Your task to perform on an android device: open device folders in google photos Image 0: 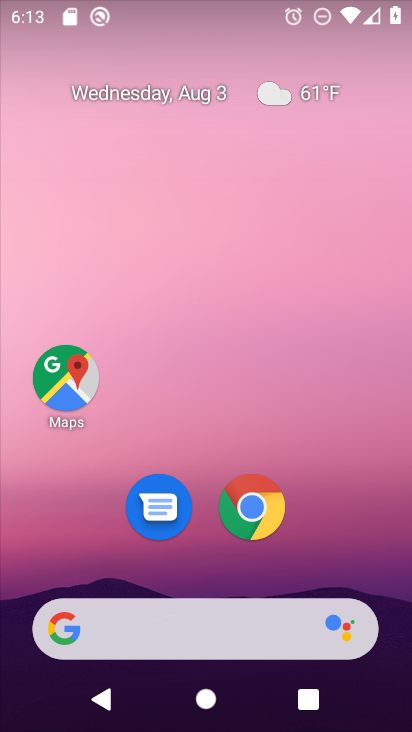
Step 0: drag from (328, 524) to (324, 48)
Your task to perform on an android device: open device folders in google photos Image 1: 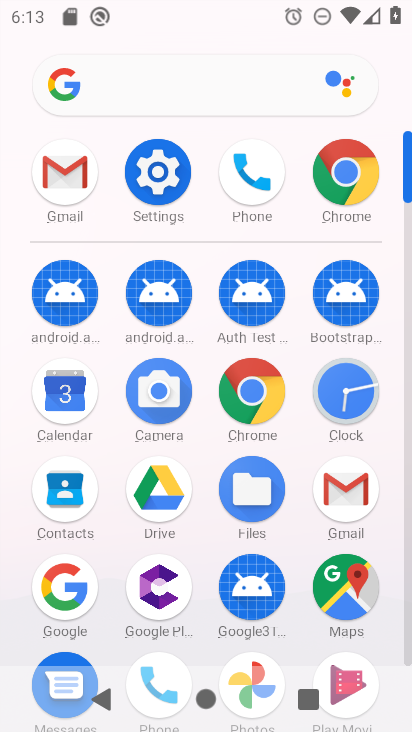
Step 1: drag from (295, 541) to (310, 188)
Your task to perform on an android device: open device folders in google photos Image 2: 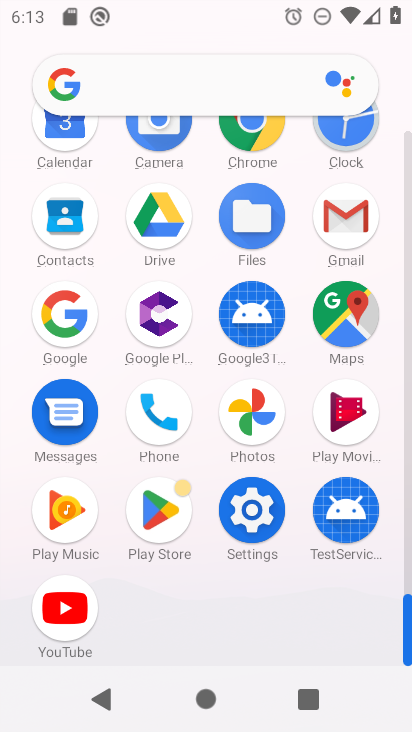
Step 2: click (257, 409)
Your task to perform on an android device: open device folders in google photos Image 3: 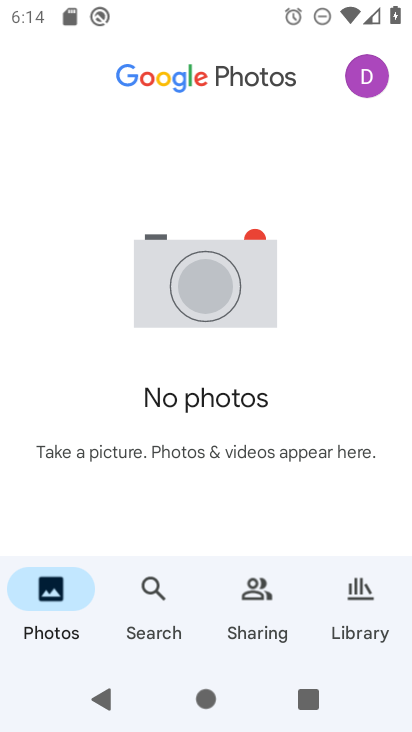
Step 3: click (360, 74)
Your task to perform on an android device: open device folders in google photos Image 4: 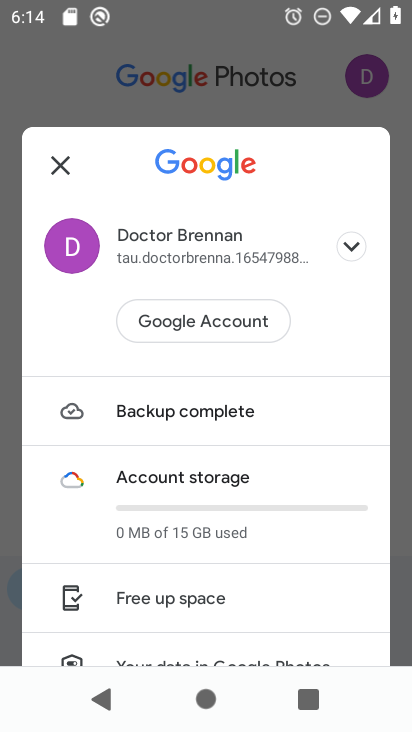
Step 4: drag from (242, 528) to (348, 102)
Your task to perform on an android device: open device folders in google photos Image 5: 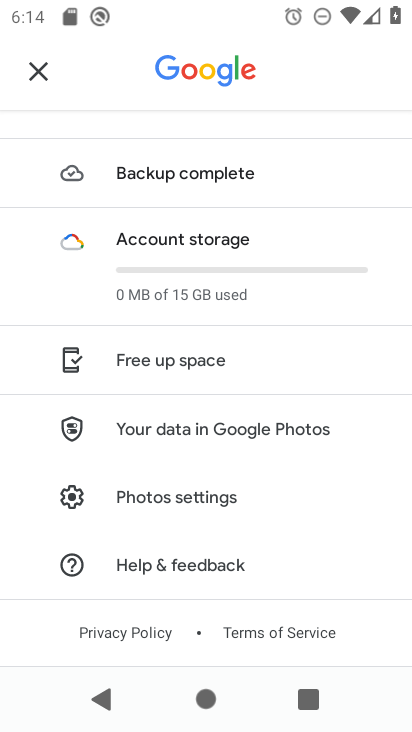
Step 5: click (230, 502)
Your task to perform on an android device: open device folders in google photos Image 6: 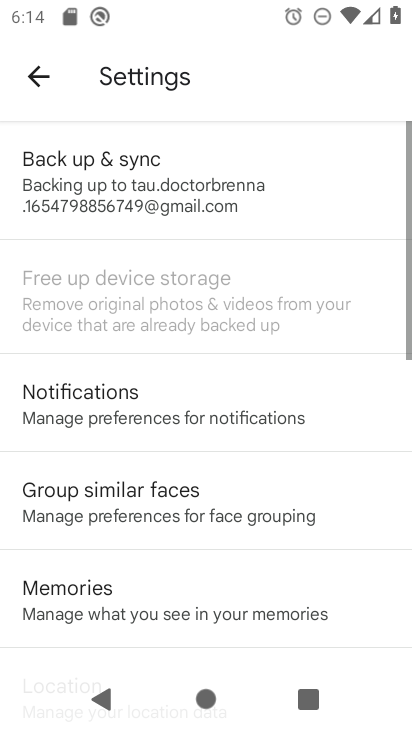
Step 6: drag from (296, 551) to (333, 127)
Your task to perform on an android device: open device folders in google photos Image 7: 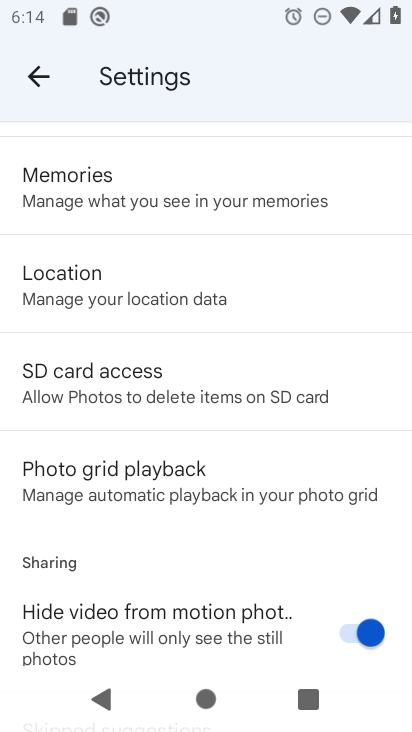
Step 7: drag from (208, 576) to (341, 151)
Your task to perform on an android device: open device folders in google photos Image 8: 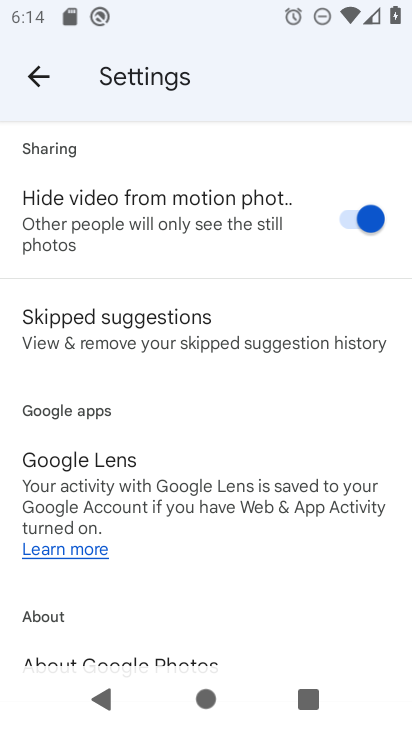
Step 8: drag from (213, 226) to (198, 635)
Your task to perform on an android device: open device folders in google photos Image 9: 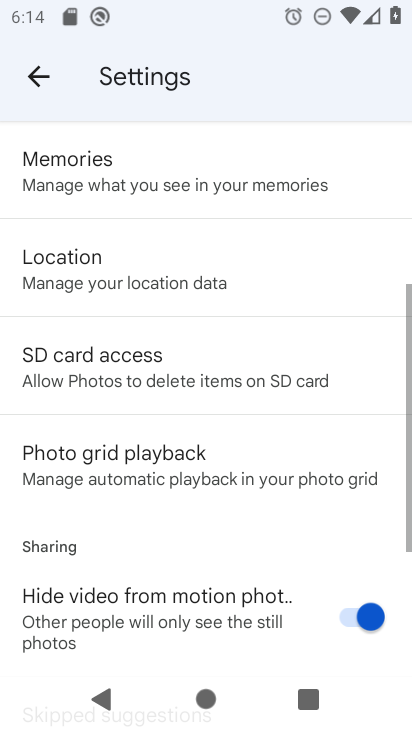
Step 9: drag from (203, 603) to (237, 18)
Your task to perform on an android device: open device folders in google photos Image 10: 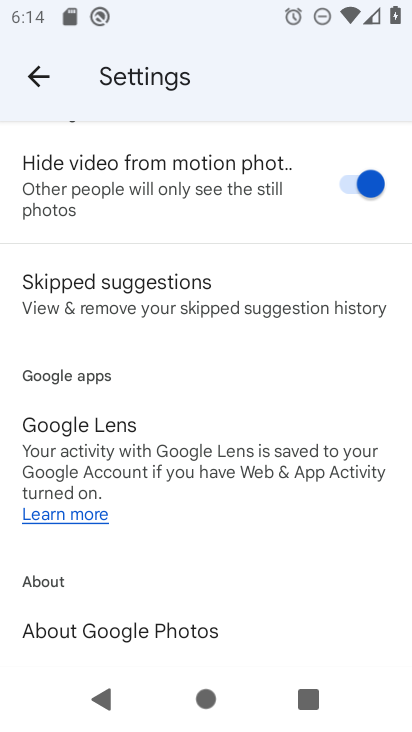
Step 10: drag from (289, 523) to (247, 124)
Your task to perform on an android device: open device folders in google photos Image 11: 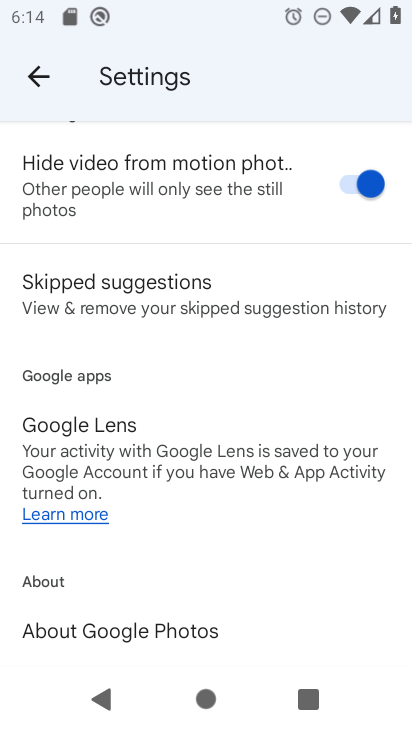
Step 11: drag from (298, 595) to (244, 115)
Your task to perform on an android device: open device folders in google photos Image 12: 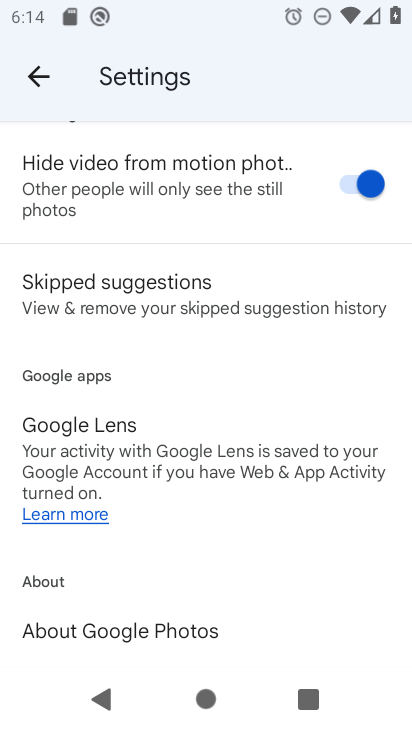
Step 12: drag from (239, 278) to (295, 663)
Your task to perform on an android device: open device folders in google photos Image 13: 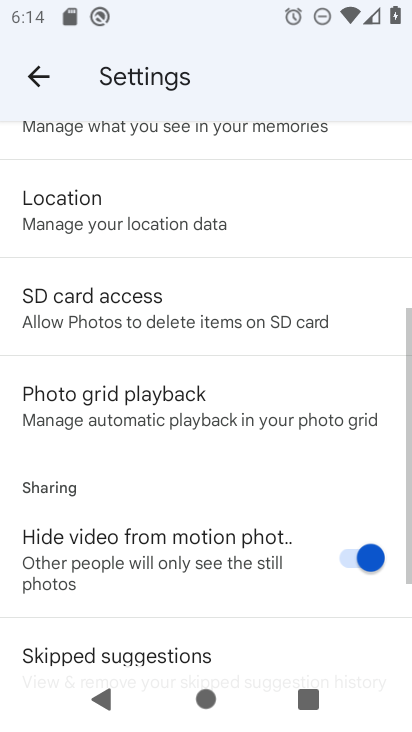
Step 13: drag from (251, 223) to (245, 643)
Your task to perform on an android device: open device folders in google photos Image 14: 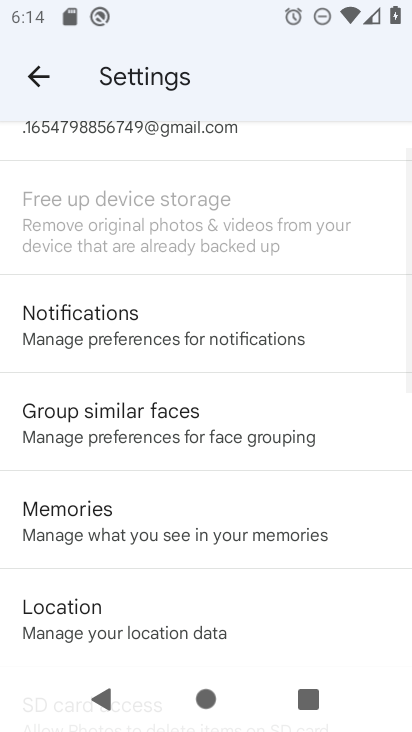
Step 14: drag from (222, 240) to (258, 587)
Your task to perform on an android device: open device folders in google photos Image 15: 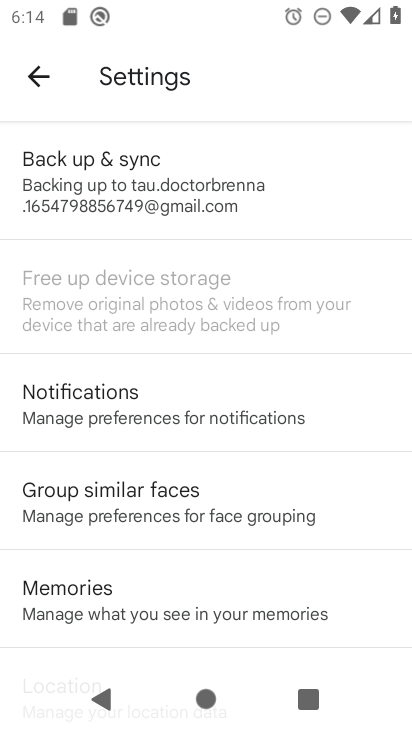
Step 15: click (192, 176)
Your task to perform on an android device: open device folders in google photos Image 16: 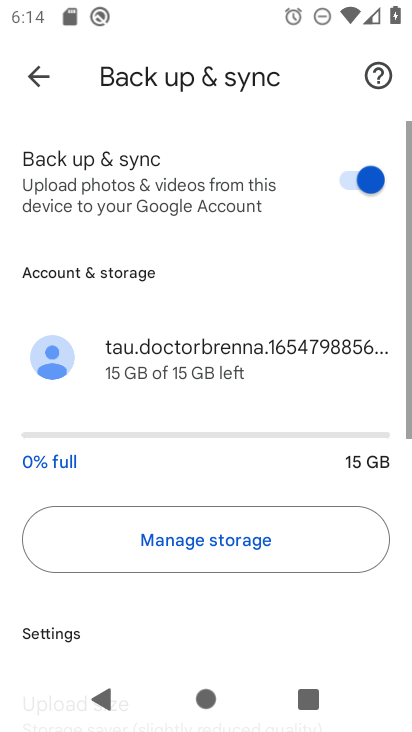
Step 16: drag from (209, 516) to (232, 25)
Your task to perform on an android device: open device folders in google photos Image 17: 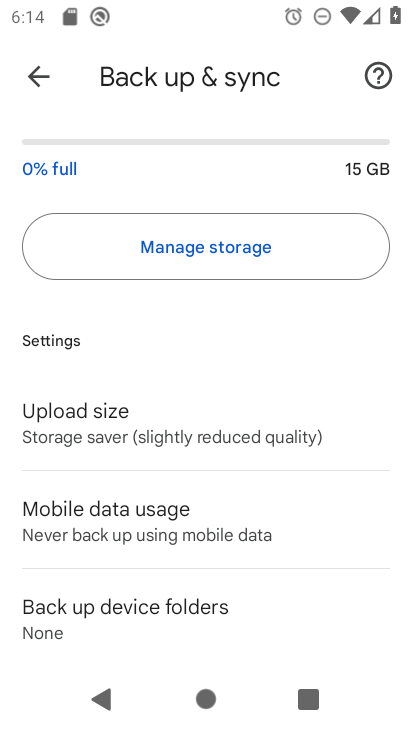
Step 17: drag from (239, 270) to (244, 41)
Your task to perform on an android device: open device folders in google photos Image 18: 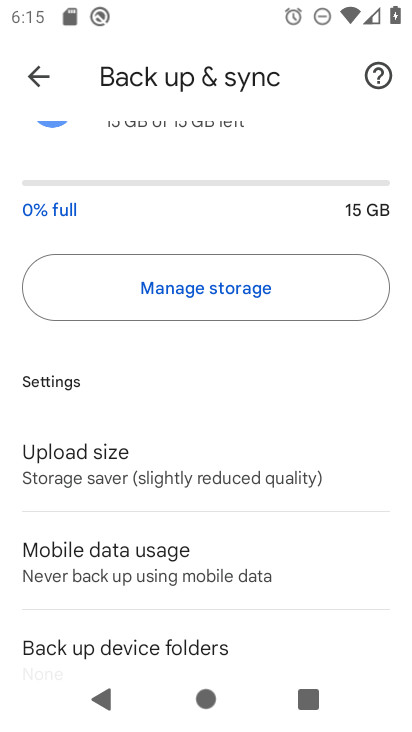
Step 18: drag from (230, 524) to (230, 4)
Your task to perform on an android device: open device folders in google photos Image 19: 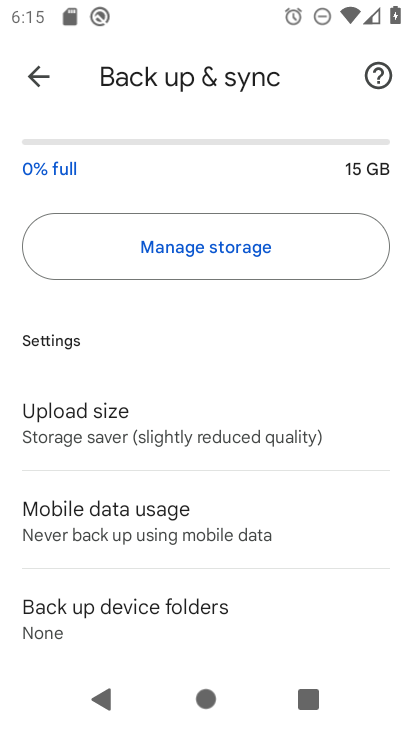
Step 19: click (193, 618)
Your task to perform on an android device: open device folders in google photos Image 20: 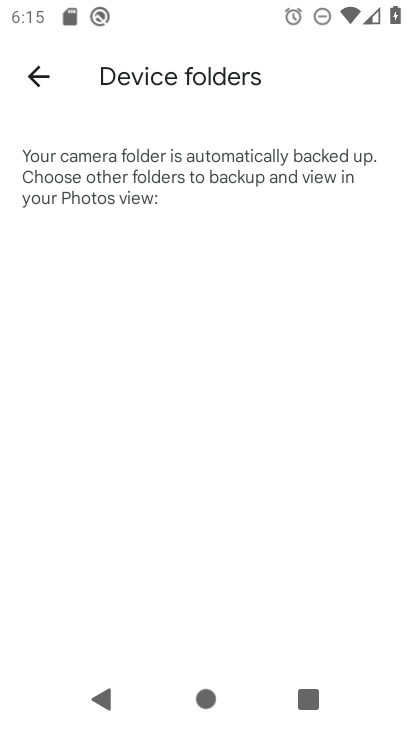
Step 20: task complete